Your task to perform on an android device: Open the stopwatch Image 0: 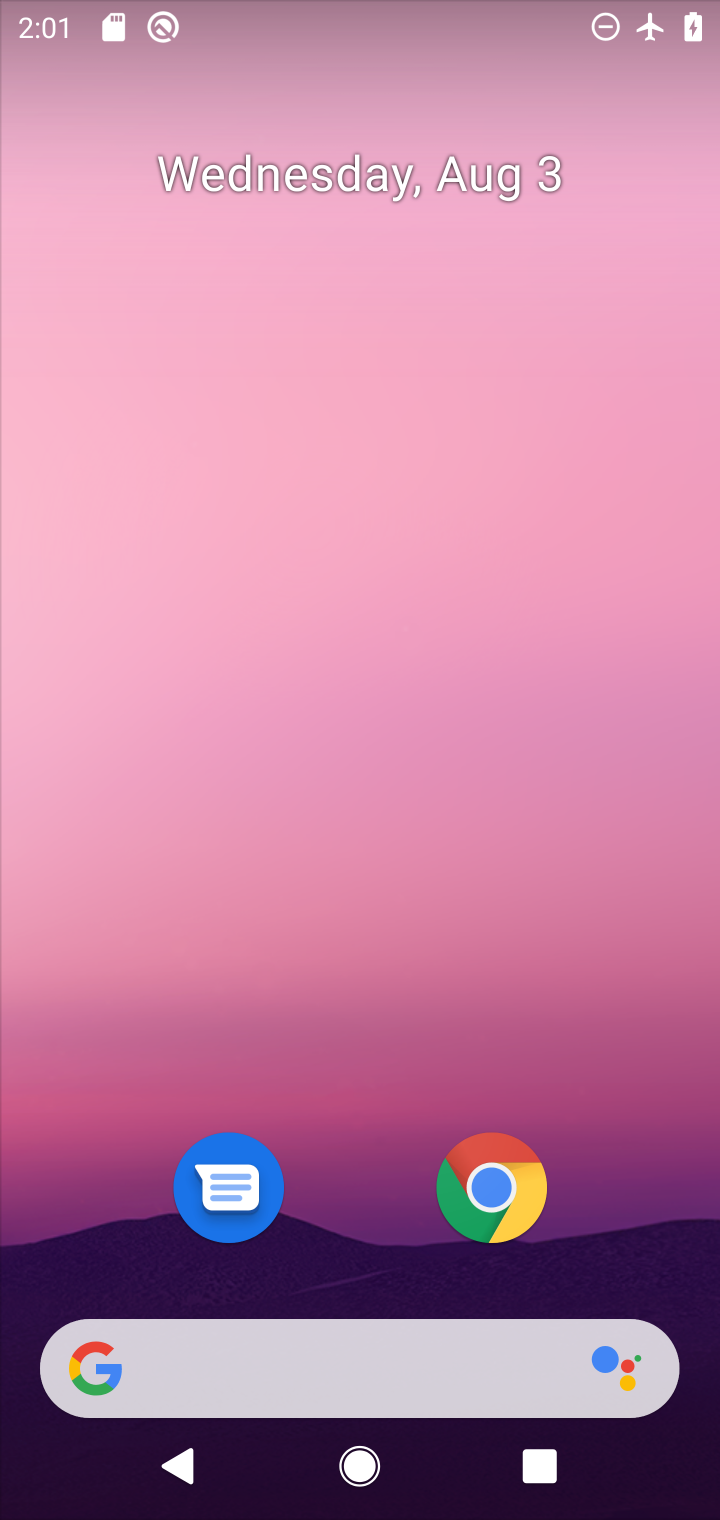
Step 0: drag from (422, 790) to (474, 5)
Your task to perform on an android device: Open the stopwatch Image 1: 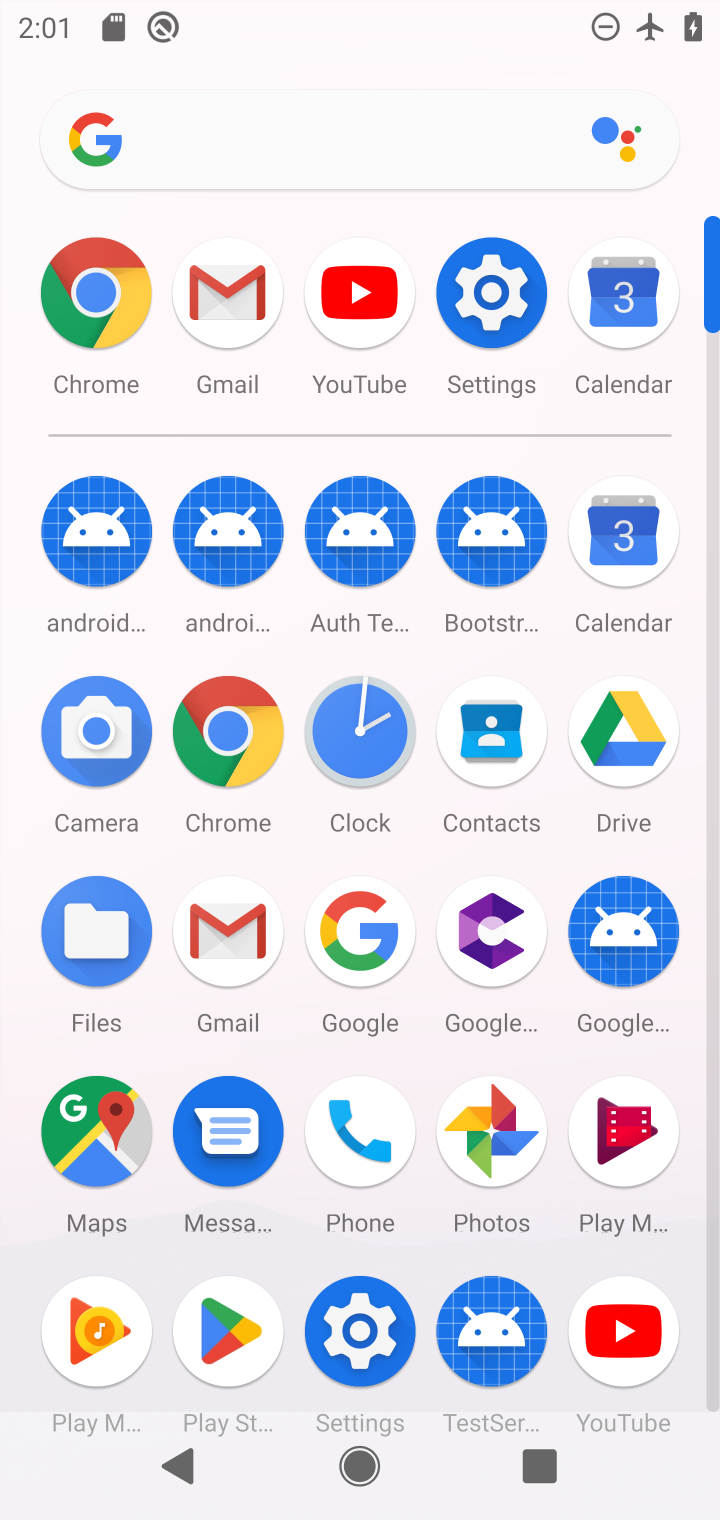
Step 1: click (362, 705)
Your task to perform on an android device: Open the stopwatch Image 2: 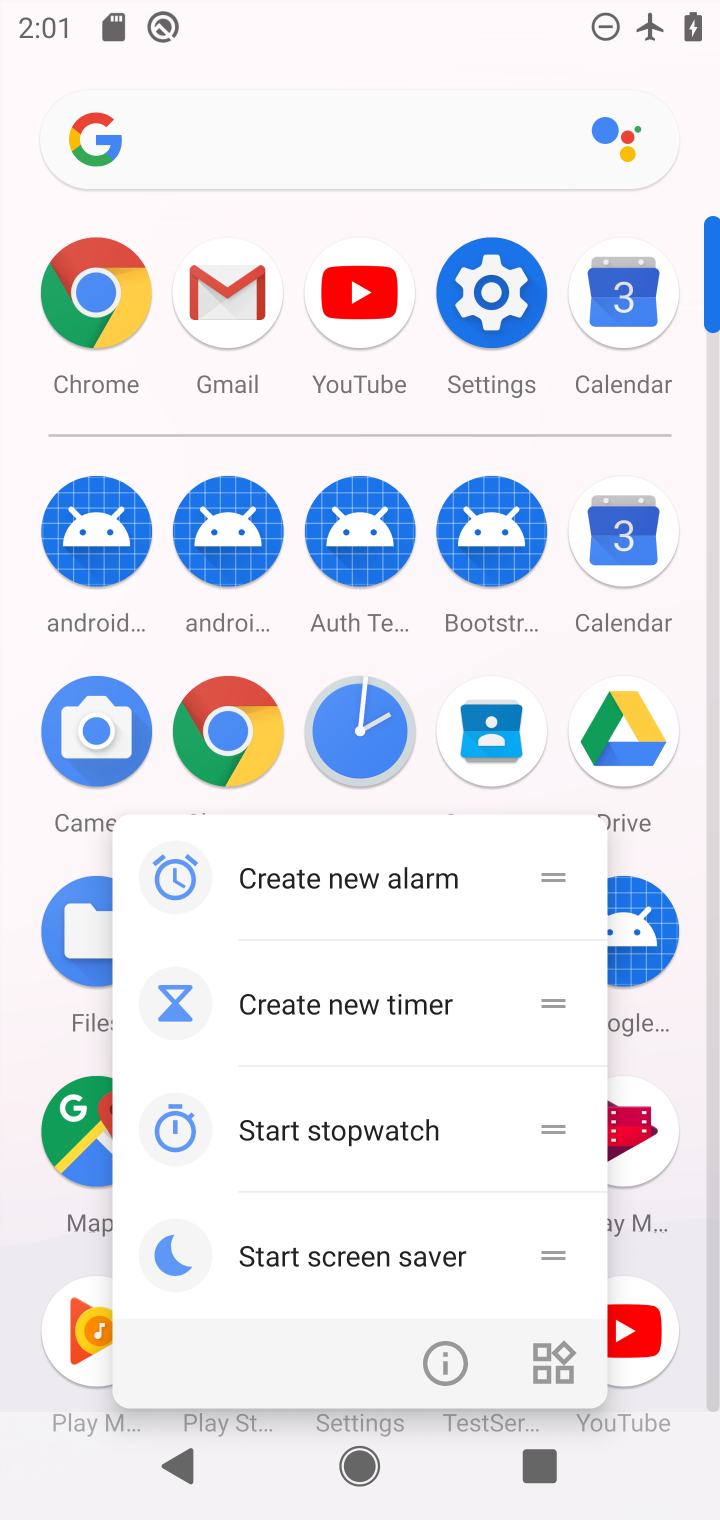
Step 2: click (362, 705)
Your task to perform on an android device: Open the stopwatch Image 3: 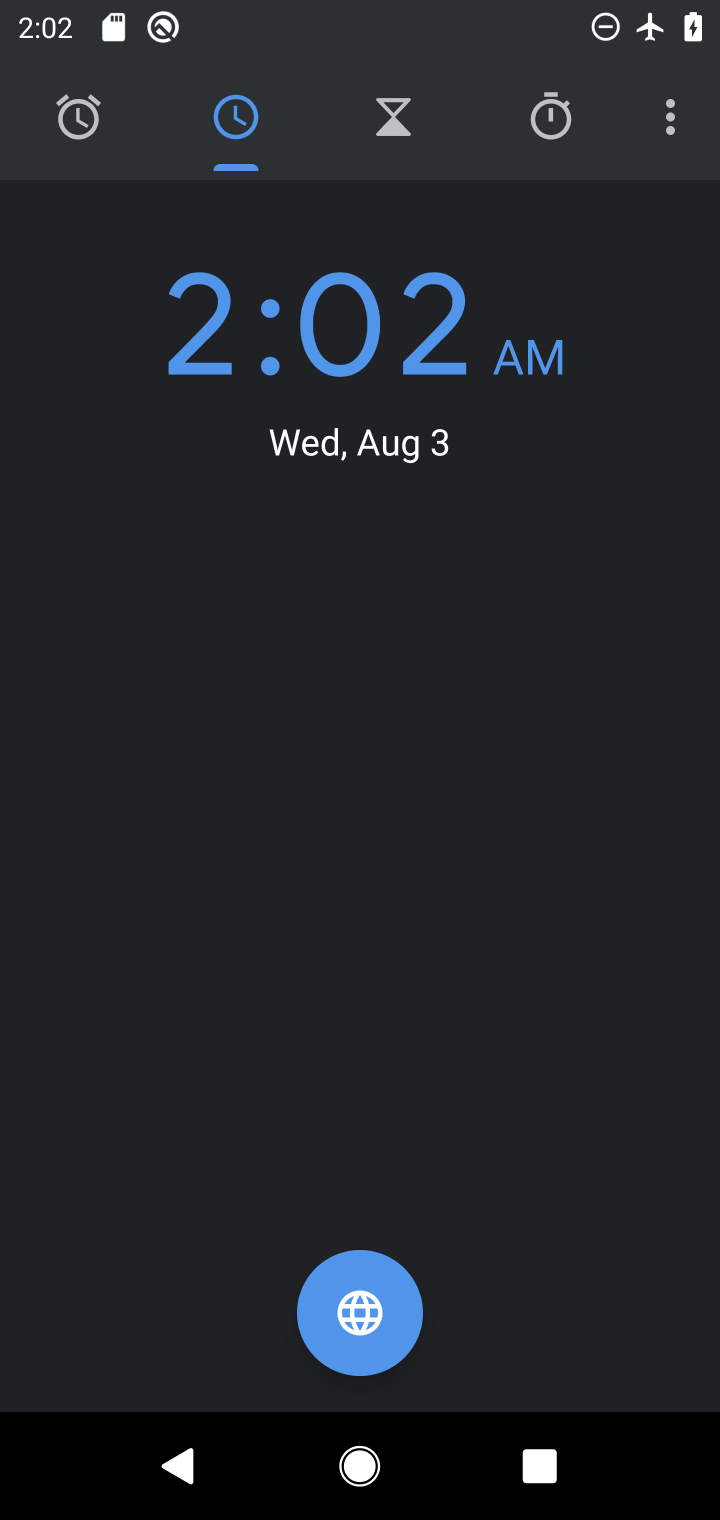
Step 3: click (556, 130)
Your task to perform on an android device: Open the stopwatch Image 4: 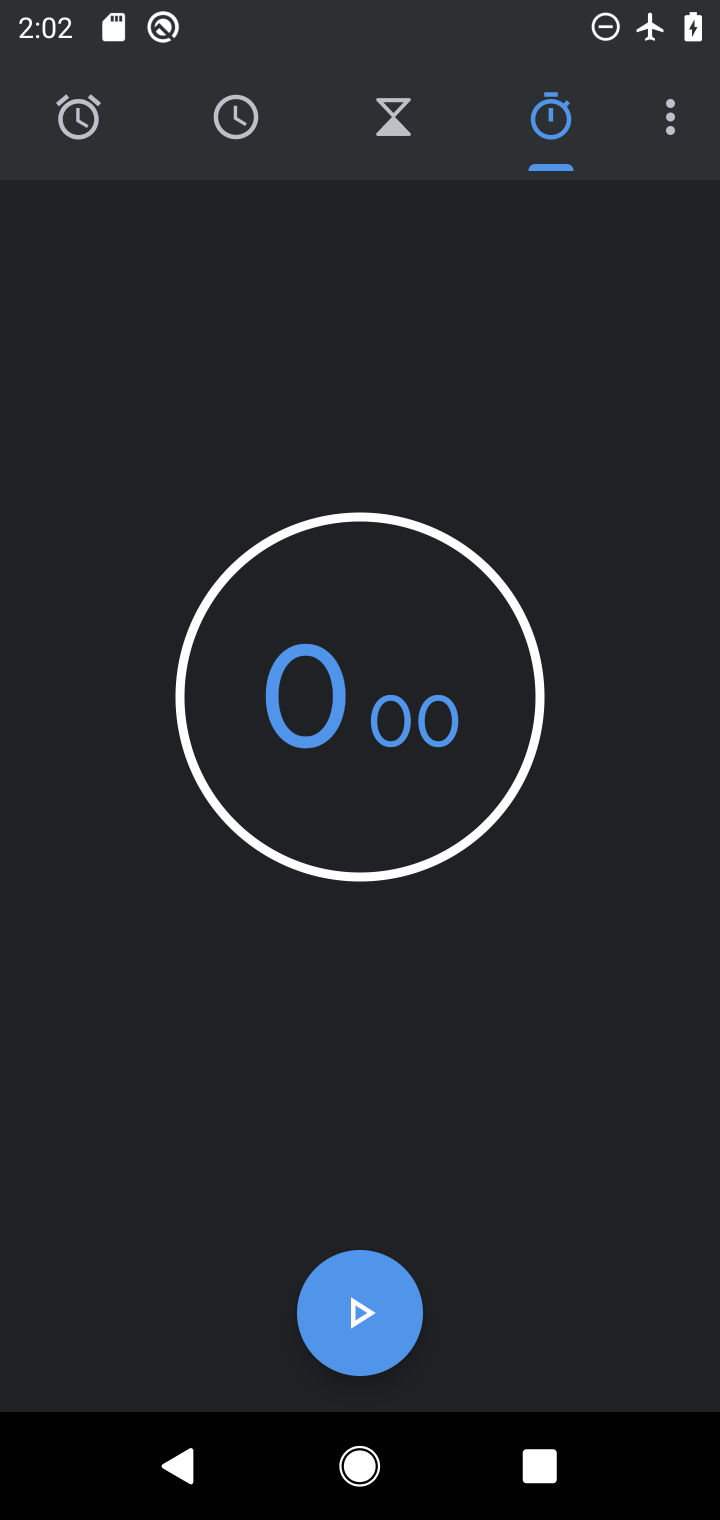
Step 4: task complete